Your task to perform on an android device: Turn off the flashlight Image 0: 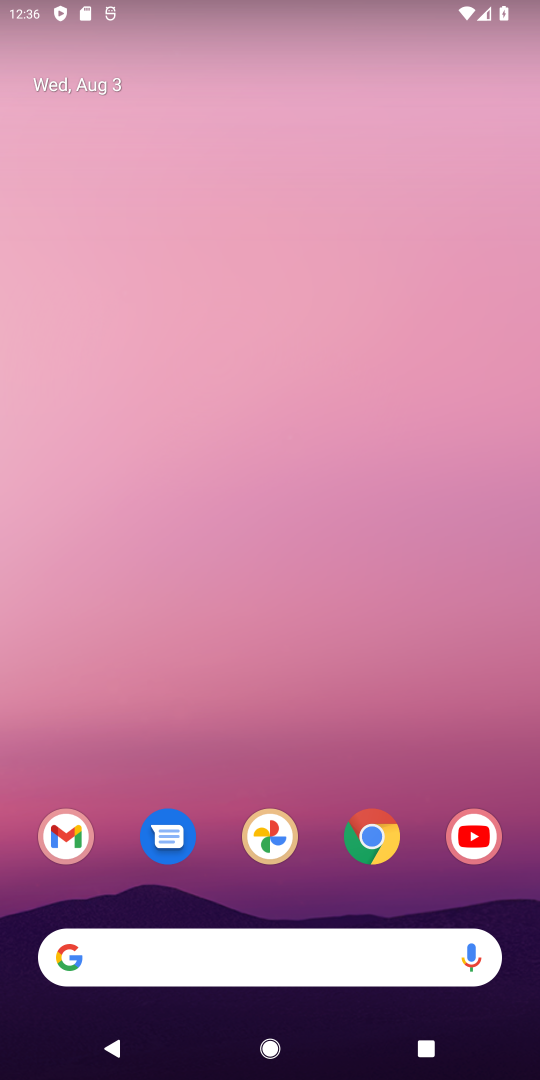
Step 0: drag from (253, 869) to (273, 497)
Your task to perform on an android device: Turn off the flashlight Image 1: 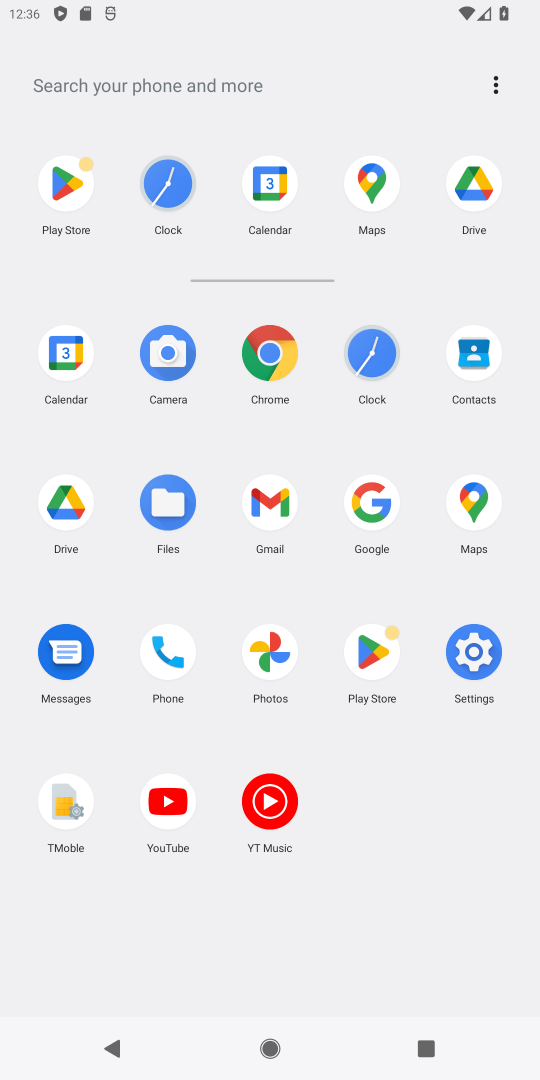
Step 1: click (461, 661)
Your task to perform on an android device: Turn off the flashlight Image 2: 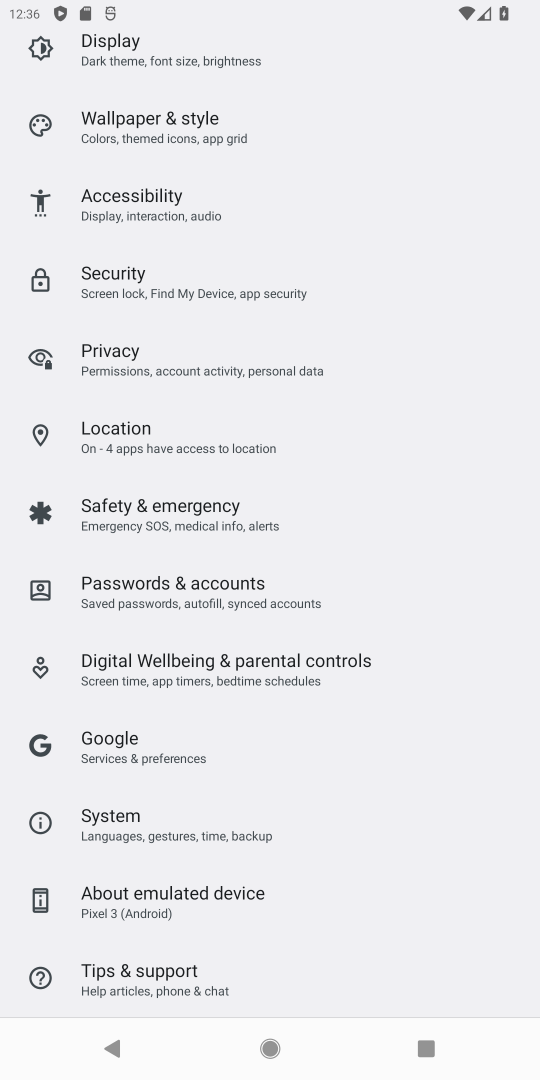
Step 2: drag from (189, 307) to (301, 1077)
Your task to perform on an android device: Turn off the flashlight Image 3: 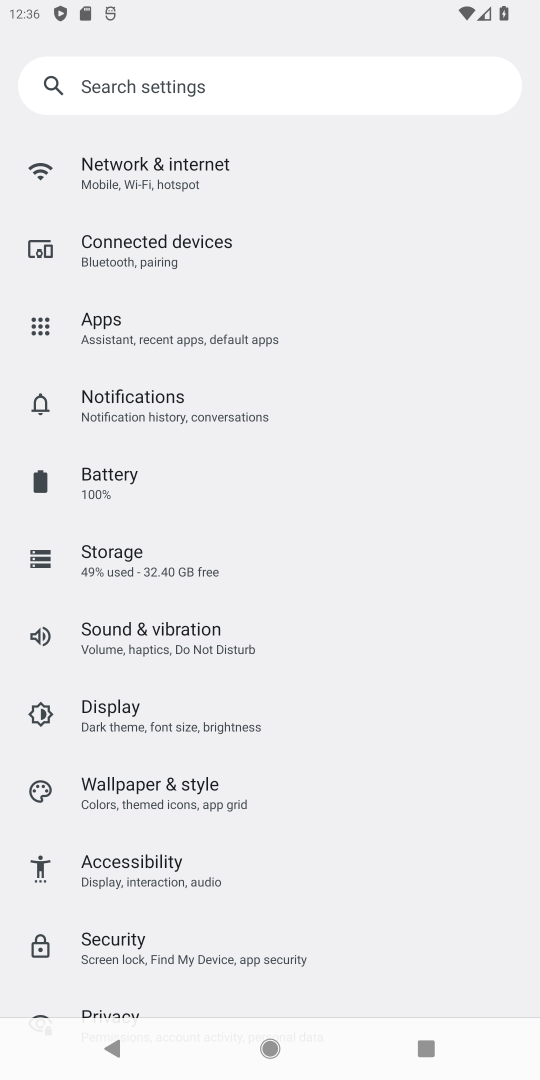
Step 3: click (120, 79)
Your task to perform on an android device: Turn off the flashlight Image 4: 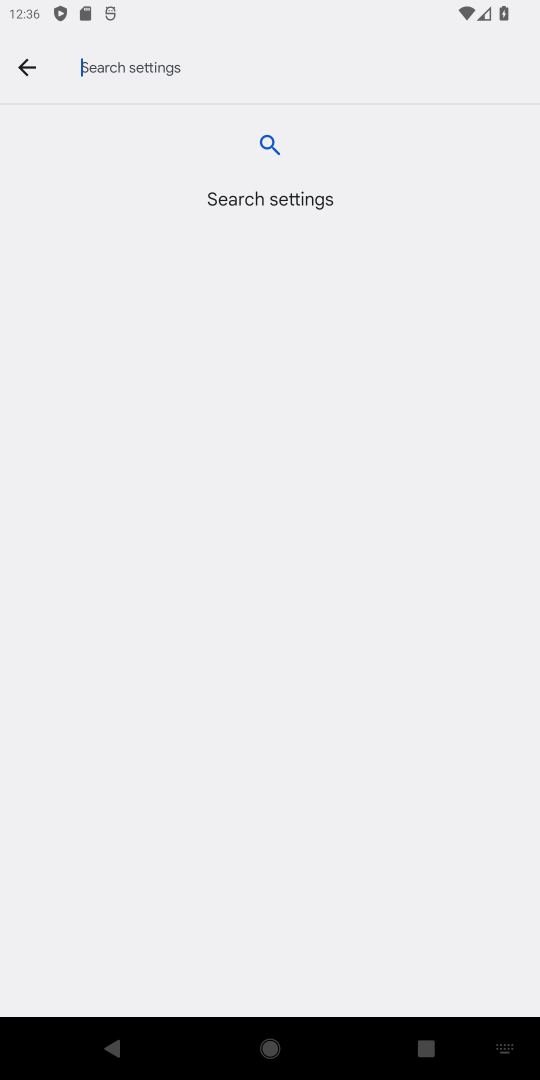
Step 4: type "flashlight"
Your task to perform on an android device: Turn off the flashlight Image 5: 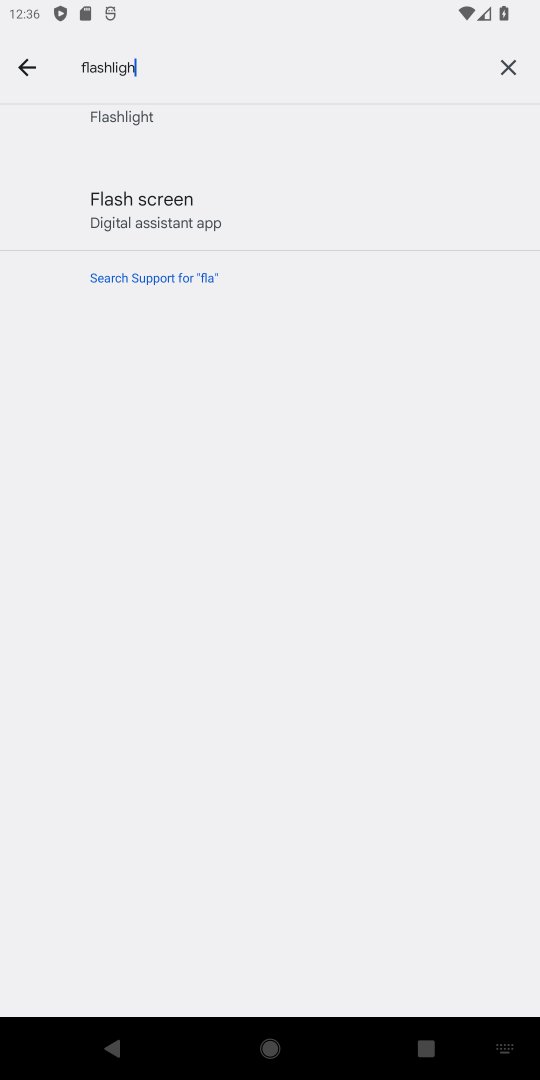
Step 5: type ""
Your task to perform on an android device: Turn off the flashlight Image 6: 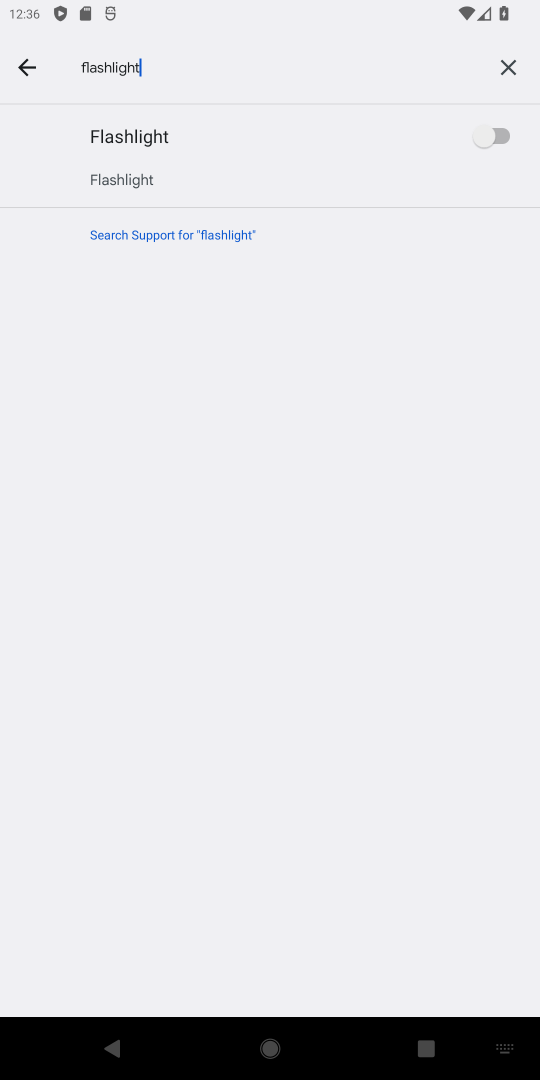
Step 6: click (131, 146)
Your task to perform on an android device: Turn off the flashlight Image 7: 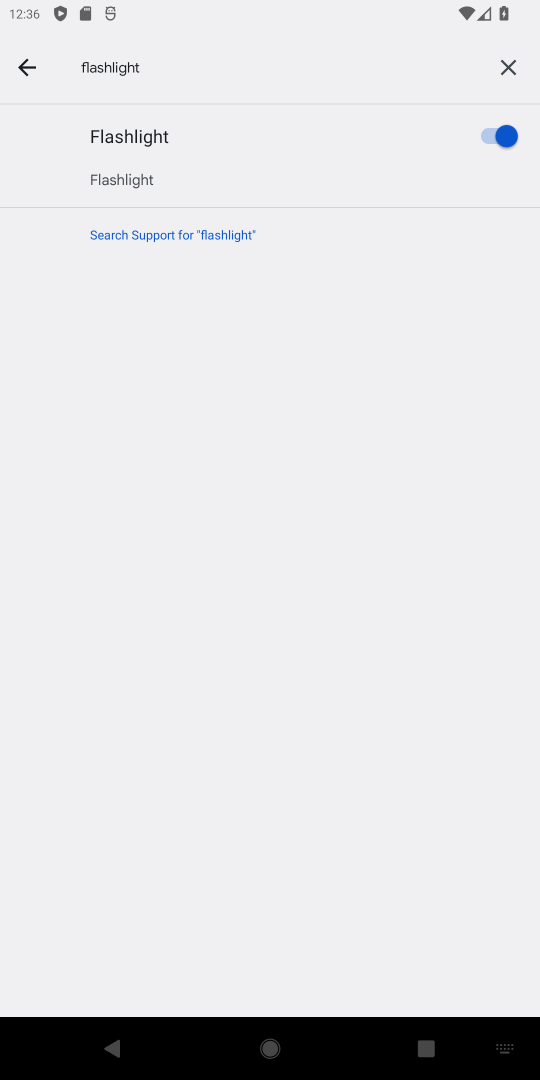
Step 7: click (507, 139)
Your task to perform on an android device: Turn off the flashlight Image 8: 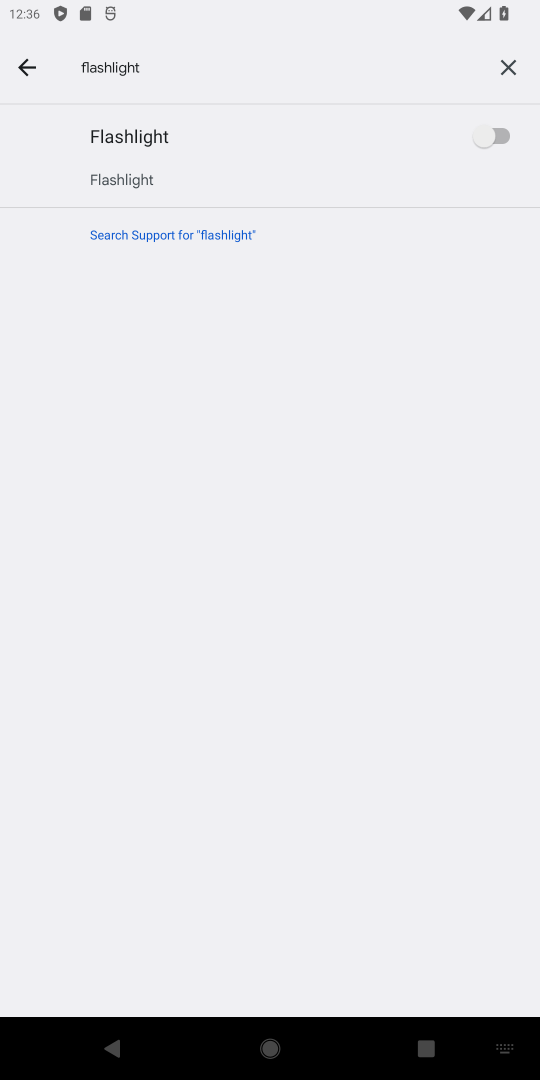
Step 8: task complete